Your task to perform on an android device: Search for pizza restaurants on Maps Image 0: 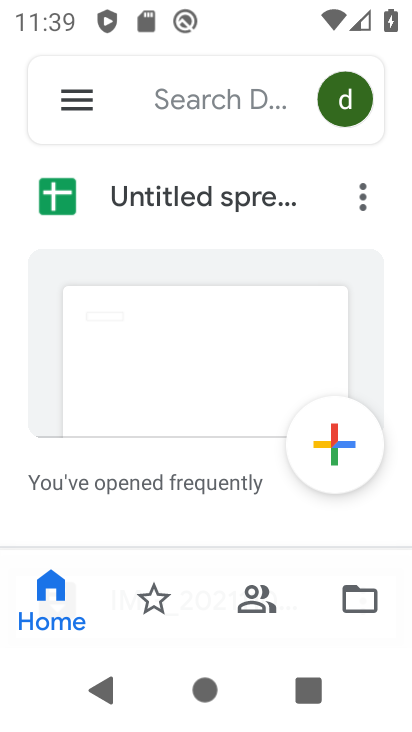
Step 0: press home button
Your task to perform on an android device: Search for pizza restaurants on Maps Image 1: 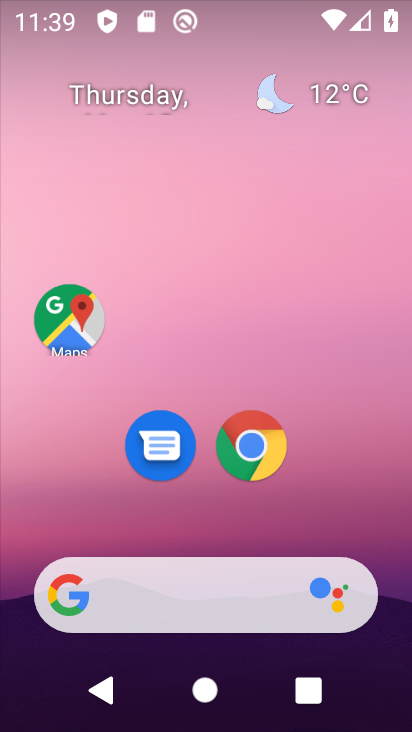
Step 1: click (65, 334)
Your task to perform on an android device: Search for pizza restaurants on Maps Image 2: 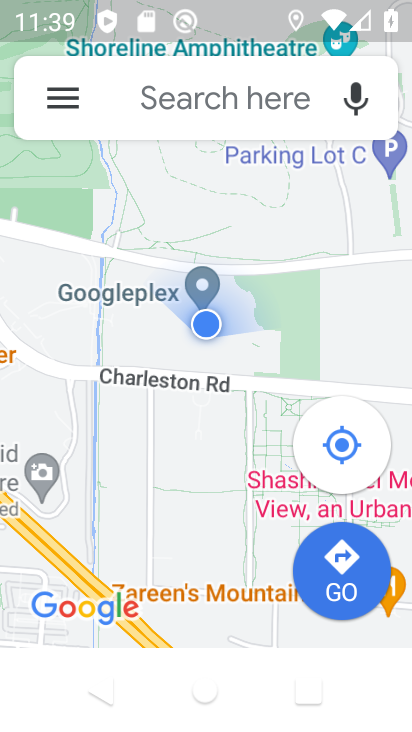
Step 2: click (200, 105)
Your task to perform on an android device: Search for pizza restaurants on Maps Image 3: 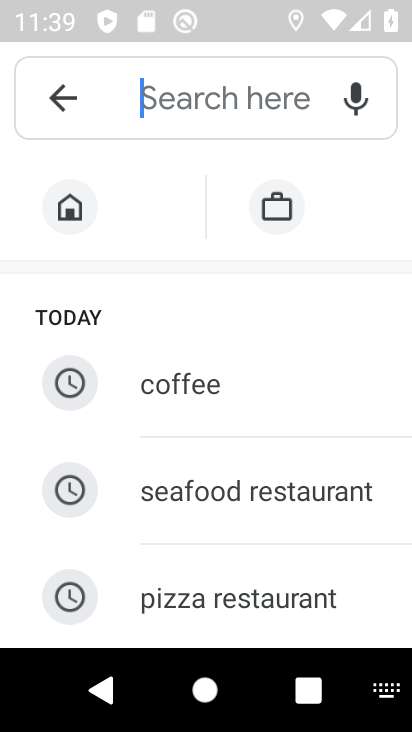
Step 3: click (307, 571)
Your task to perform on an android device: Search for pizza restaurants on Maps Image 4: 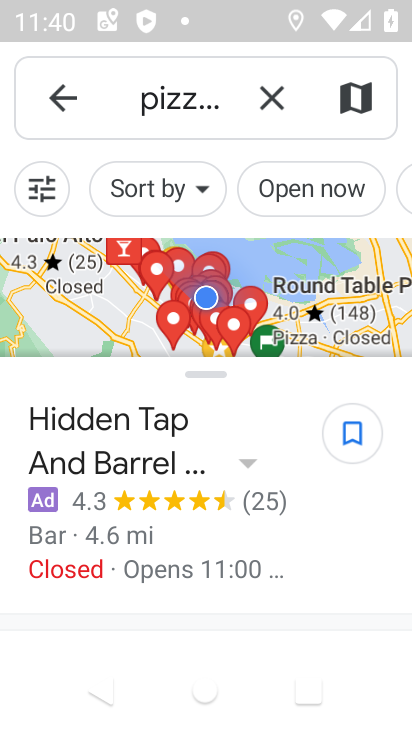
Step 4: task complete